Your task to perform on an android device: Open CNN.com Image 0: 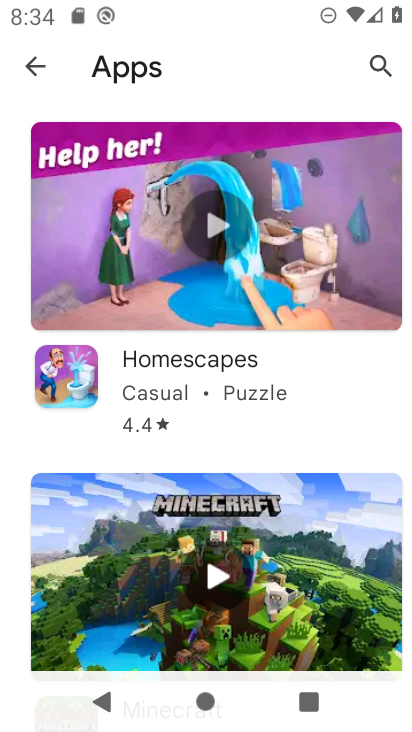
Step 0: press home button
Your task to perform on an android device: Open CNN.com Image 1: 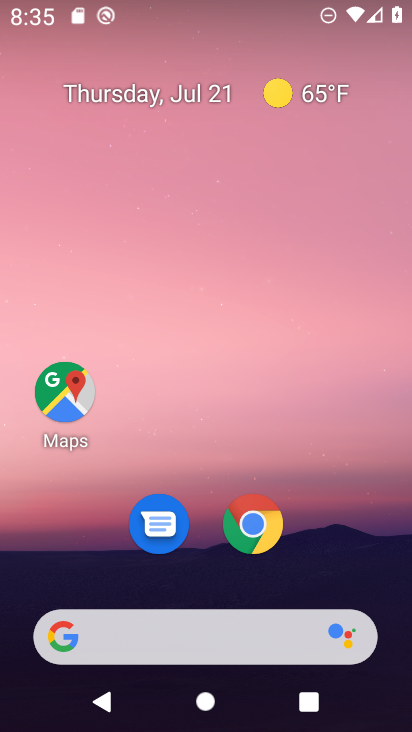
Step 1: click (251, 529)
Your task to perform on an android device: Open CNN.com Image 2: 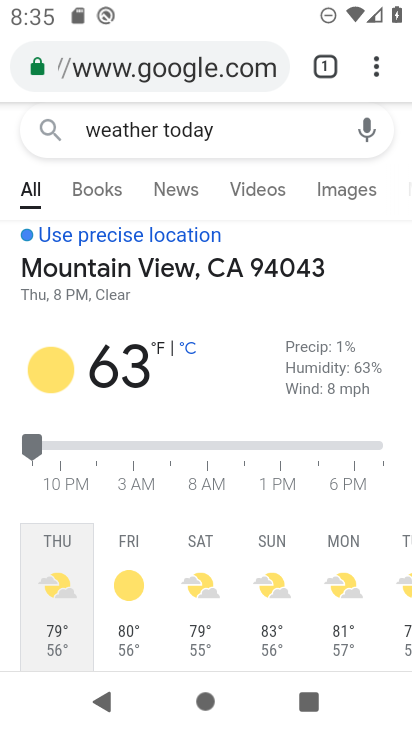
Step 2: click (160, 68)
Your task to perform on an android device: Open CNN.com Image 3: 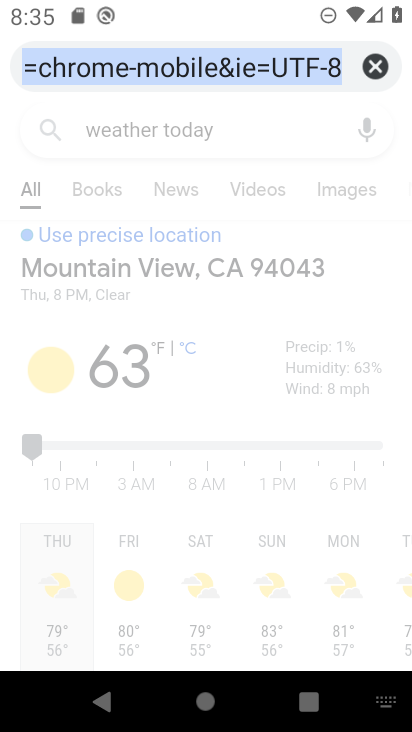
Step 3: type "cnn.com"
Your task to perform on an android device: Open CNN.com Image 4: 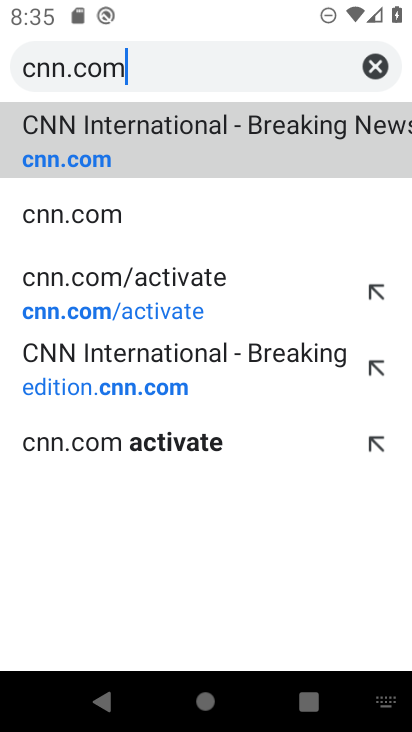
Step 4: click (149, 162)
Your task to perform on an android device: Open CNN.com Image 5: 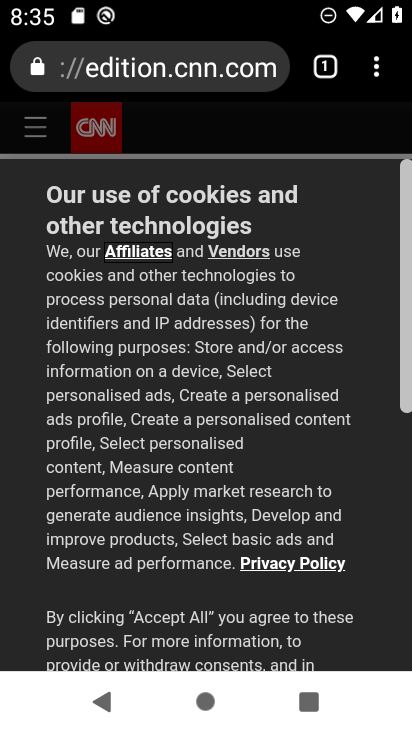
Step 5: task complete